Your task to perform on an android device: Open calendar and show me the fourth week of next month Image 0: 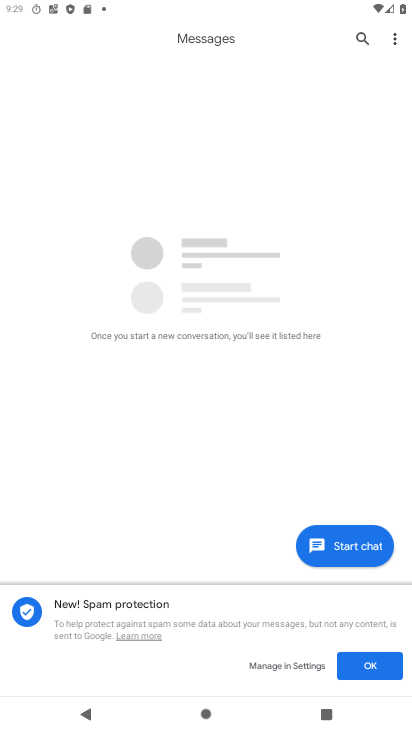
Step 0: press home button
Your task to perform on an android device: Open calendar and show me the fourth week of next month Image 1: 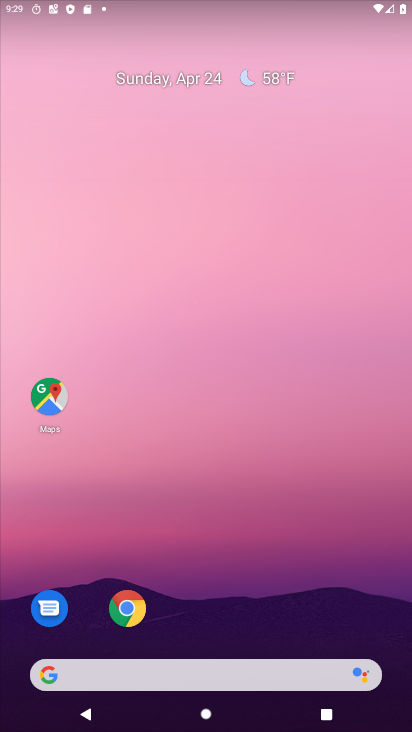
Step 1: drag from (360, 608) to (346, 143)
Your task to perform on an android device: Open calendar and show me the fourth week of next month Image 2: 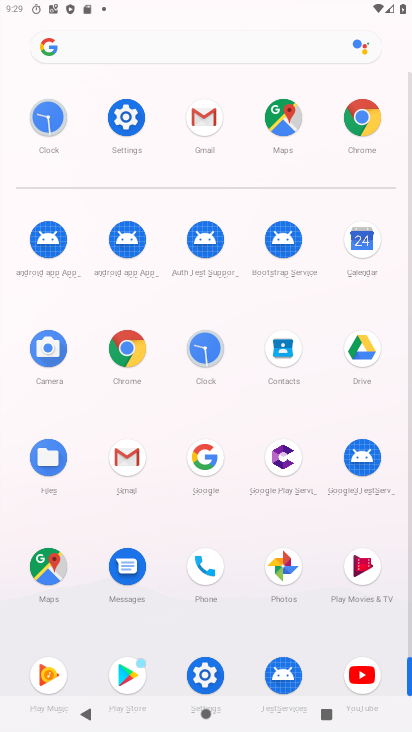
Step 2: click (364, 238)
Your task to perform on an android device: Open calendar and show me the fourth week of next month Image 3: 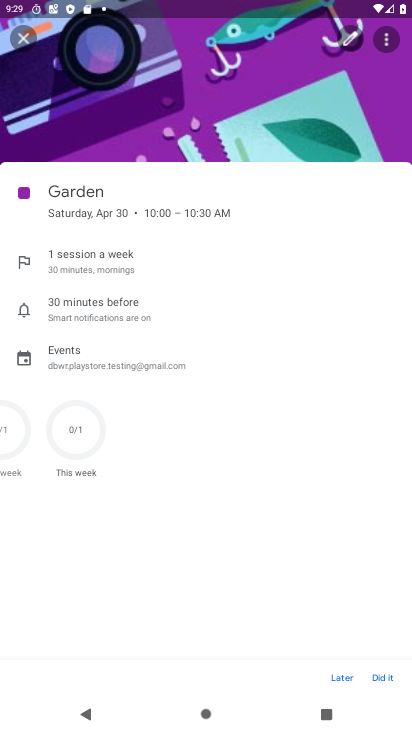
Step 3: click (20, 40)
Your task to perform on an android device: Open calendar and show me the fourth week of next month Image 4: 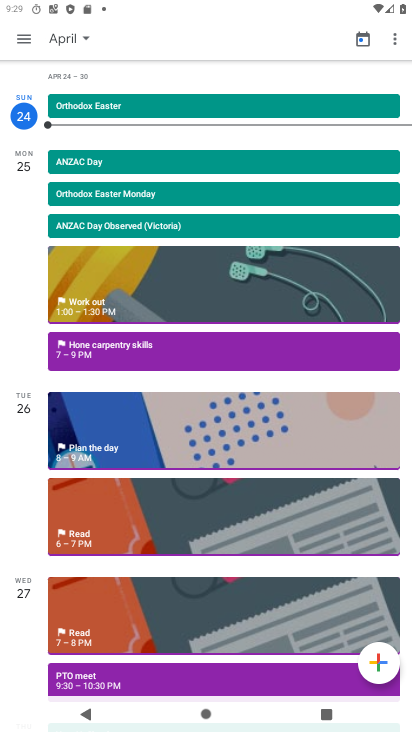
Step 4: click (91, 36)
Your task to perform on an android device: Open calendar and show me the fourth week of next month Image 5: 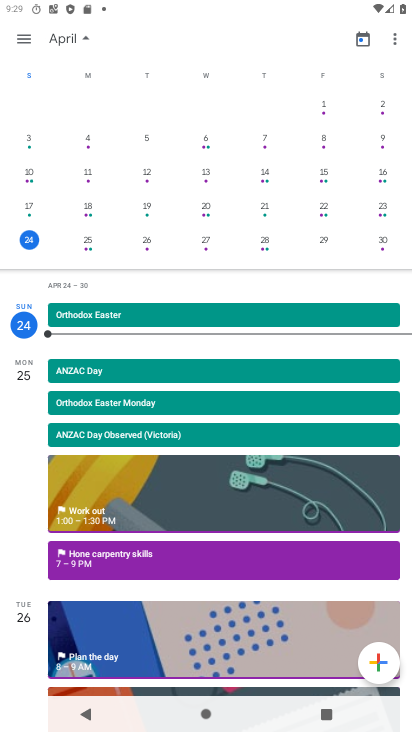
Step 5: drag from (314, 135) to (39, 119)
Your task to perform on an android device: Open calendar and show me the fourth week of next month Image 6: 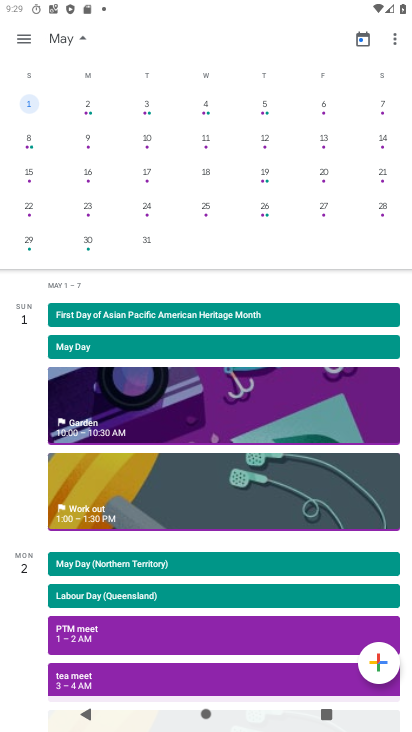
Step 6: click (87, 206)
Your task to perform on an android device: Open calendar and show me the fourth week of next month Image 7: 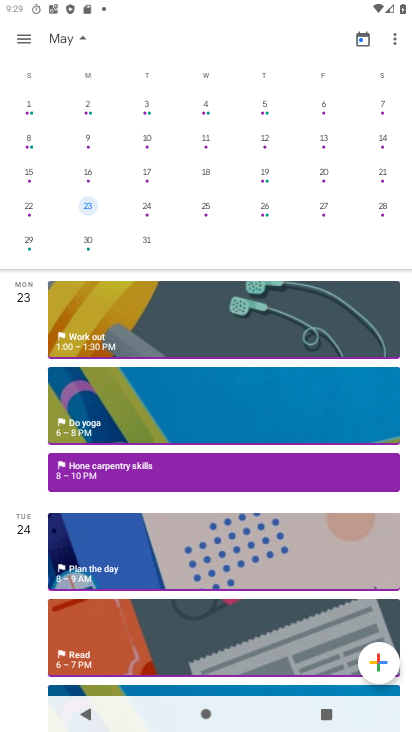
Step 7: task complete